Your task to perform on an android device: Go to Android settings Image 0: 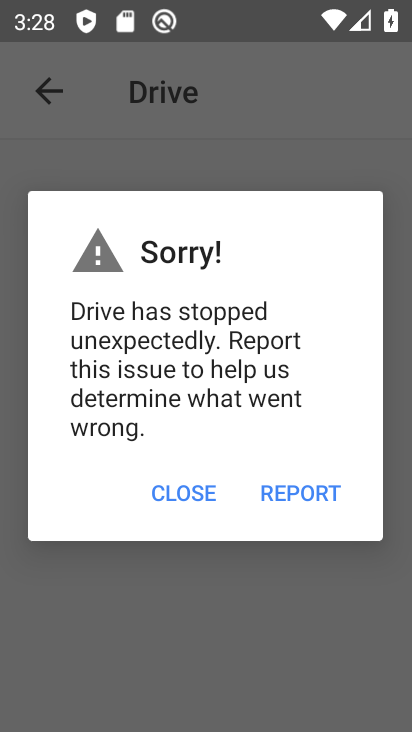
Step 0: press home button
Your task to perform on an android device: Go to Android settings Image 1: 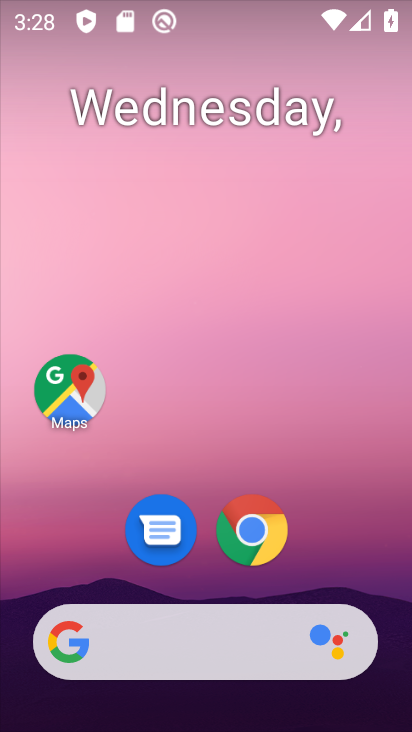
Step 1: drag from (343, 513) to (325, 26)
Your task to perform on an android device: Go to Android settings Image 2: 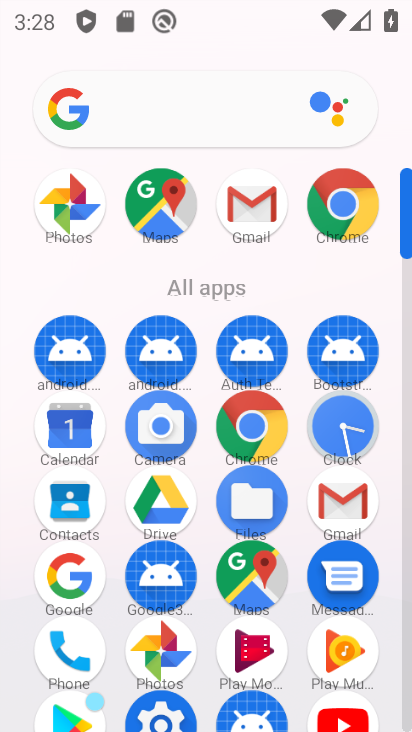
Step 2: click (150, 715)
Your task to perform on an android device: Go to Android settings Image 3: 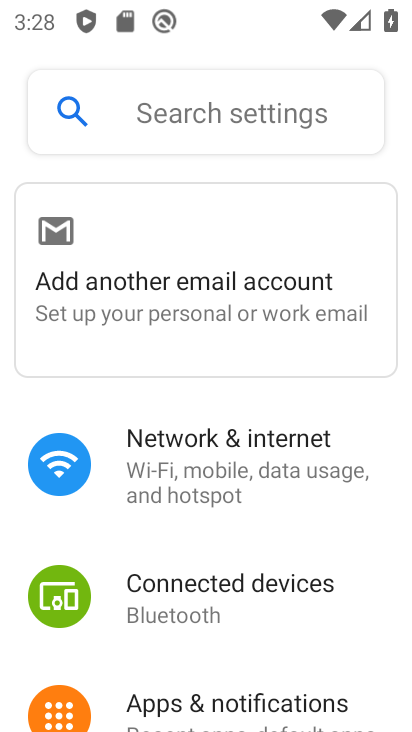
Step 3: task complete